Your task to perform on an android device: Open calendar and show me the first week of next month Image 0: 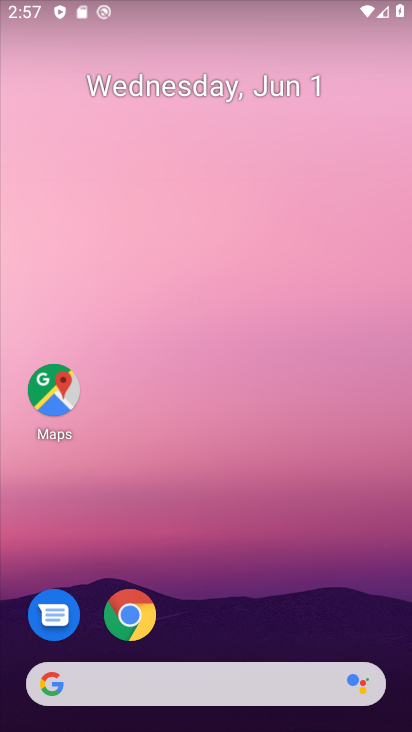
Step 0: drag from (283, 681) to (363, 35)
Your task to perform on an android device: Open calendar and show me the first week of next month Image 1: 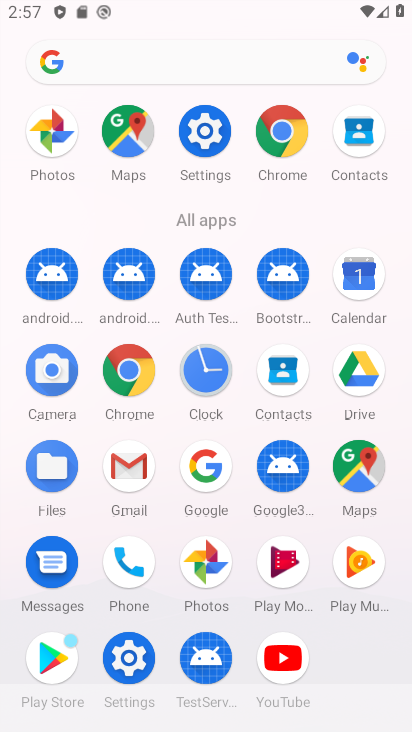
Step 1: click (366, 293)
Your task to perform on an android device: Open calendar and show me the first week of next month Image 2: 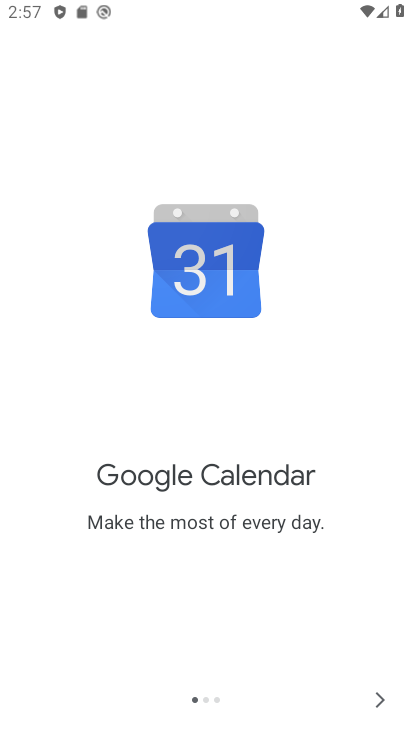
Step 2: click (379, 696)
Your task to perform on an android device: Open calendar and show me the first week of next month Image 3: 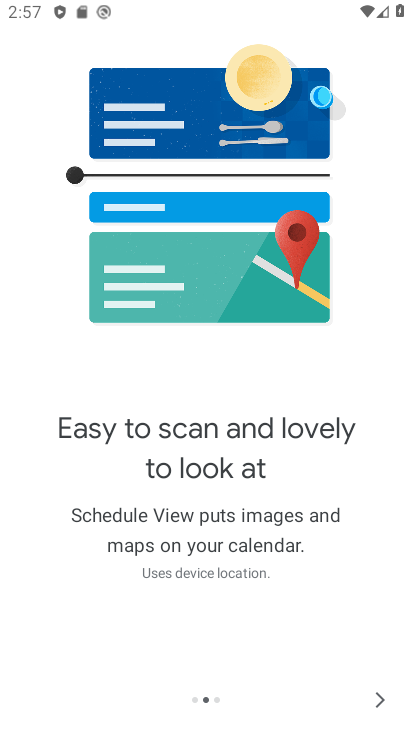
Step 3: click (379, 696)
Your task to perform on an android device: Open calendar and show me the first week of next month Image 4: 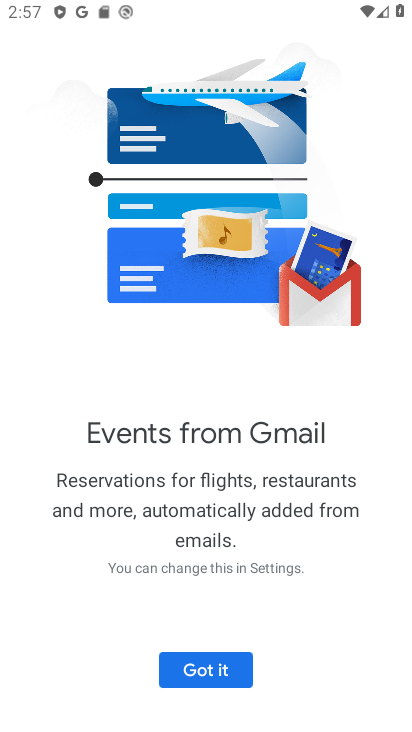
Step 4: click (224, 672)
Your task to perform on an android device: Open calendar and show me the first week of next month Image 5: 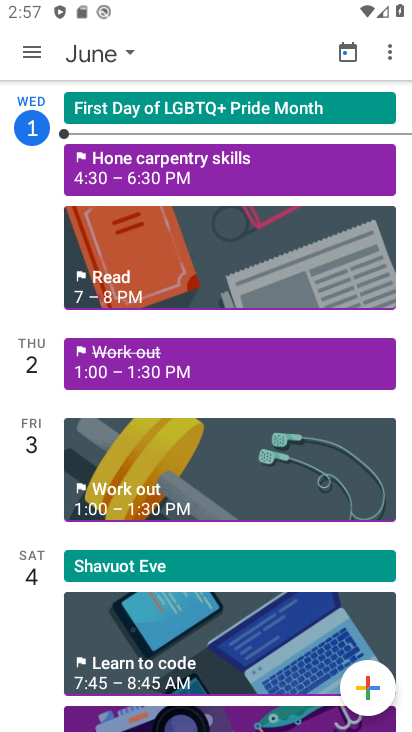
Step 5: click (123, 56)
Your task to perform on an android device: Open calendar and show me the first week of next month Image 6: 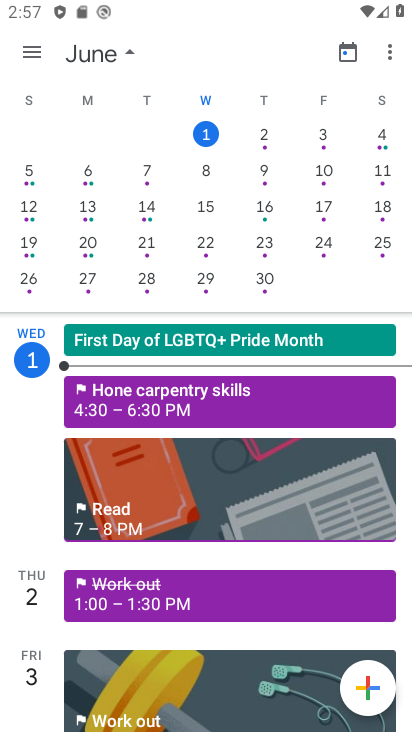
Step 6: click (378, 133)
Your task to perform on an android device: Open calendar and show me the first week of next month Image 7: 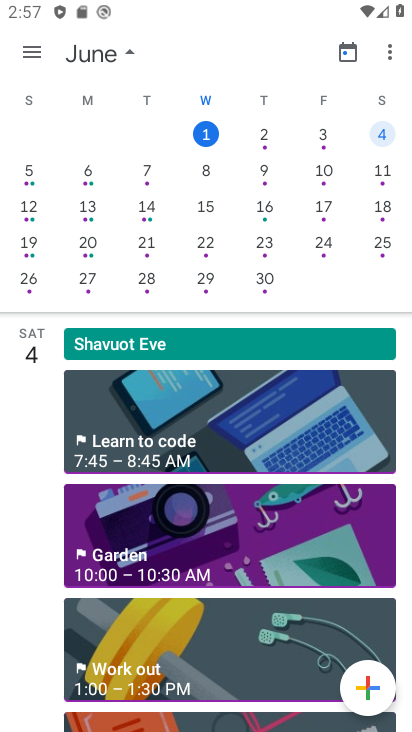
Step 7: click (34, 54)
Your task to perform on an android device: Open calendar and show me the first week of next month Image 8: 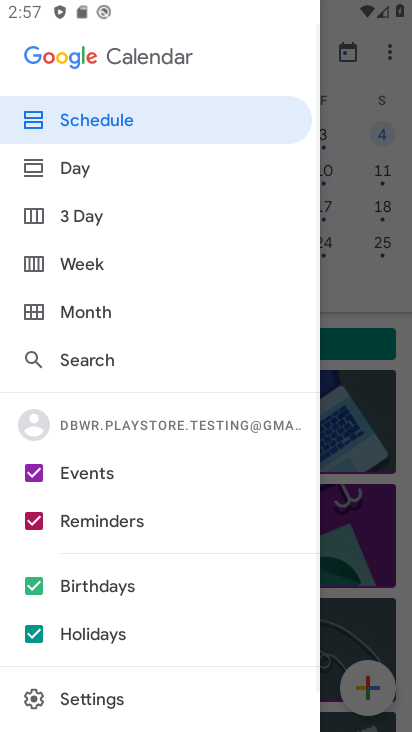
Step 8: click (97, 264)
Your task to perform on an android device: Open calendar and show me the first week of next month Image 9: 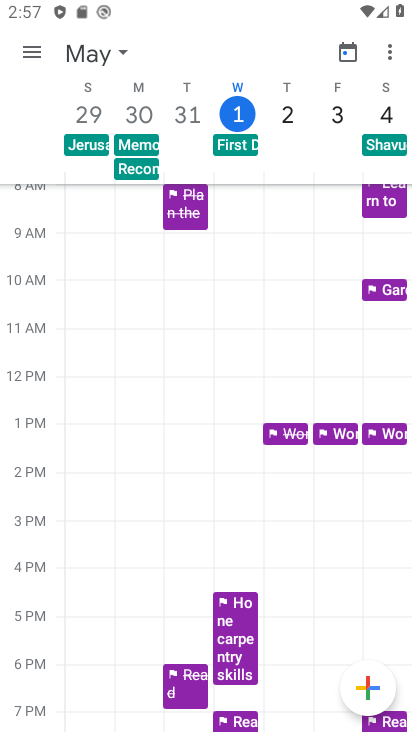
Step 9: task complete